Your task to perform on an android device: Go to network settings Image 0: 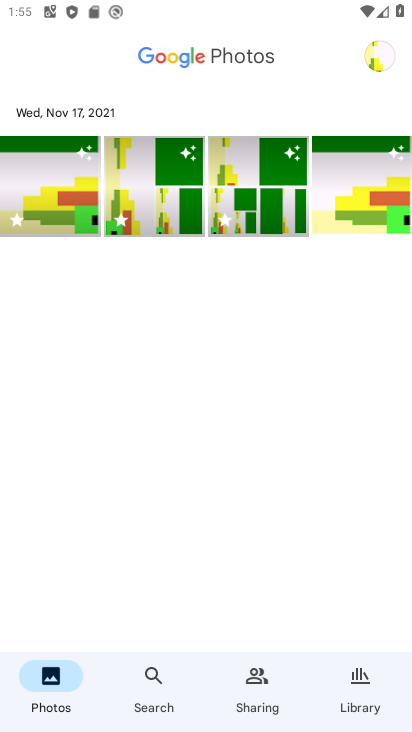
Step 0: press home button
Your task to perform on an android device: Go to network settings Image 1: 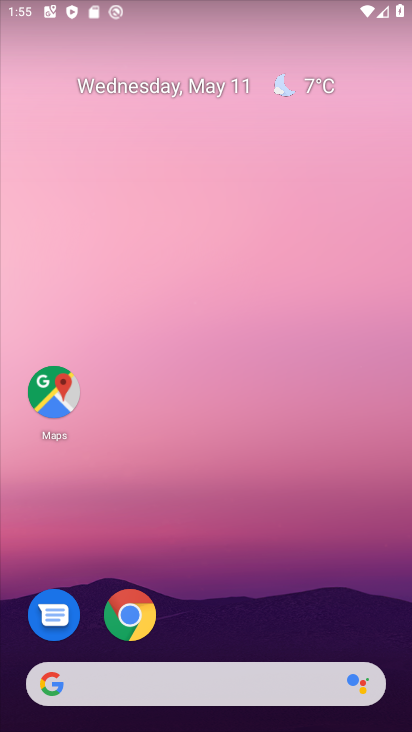
Step 1: drag from (259, 592) to (354, 14)
Your task to perform on an android device: Go to network settings Image 2: 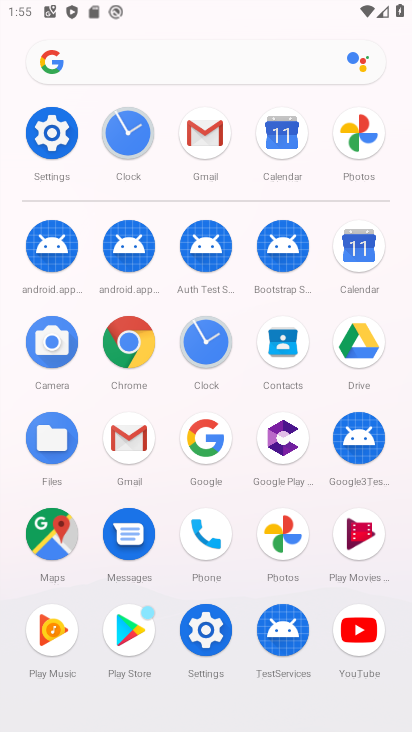
Step 2: click (59, 143)
Your task to perform on an android device: Go to network settings Image 3: 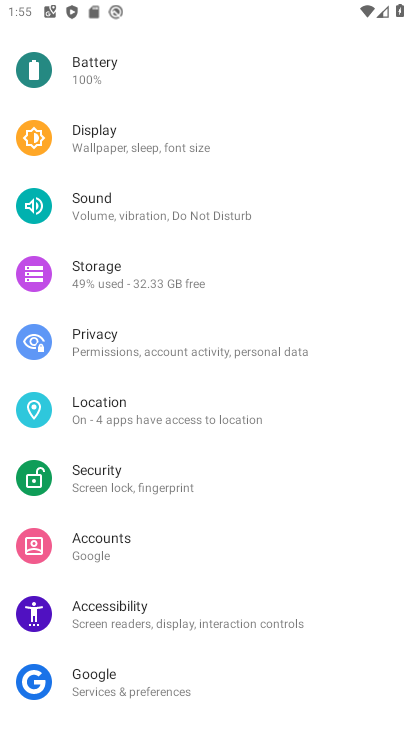
Step 3: drag from (215, 99) to (254, 710)
Your task to perform on an android device: Go to network settings Image 4: 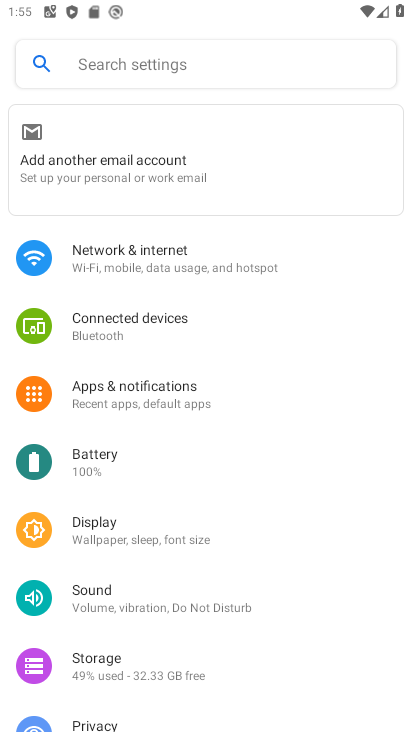
Step 4: click (227, 262)
Your task to perform on an android device: Go to network settings Image 5: 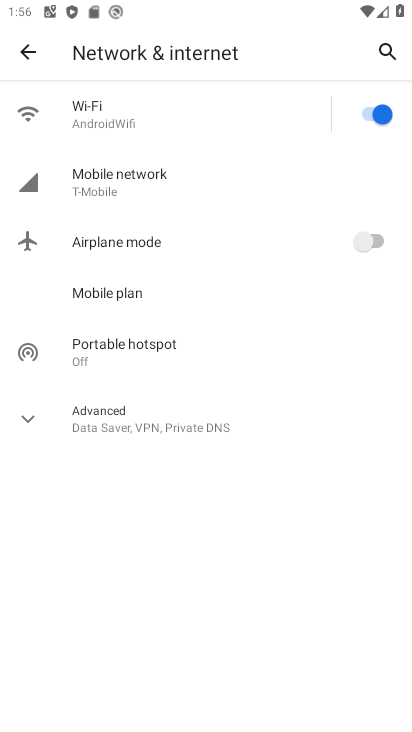
Step 5: click (188, 419)
Your task to perform on an android device: Go to network settings Image 6: 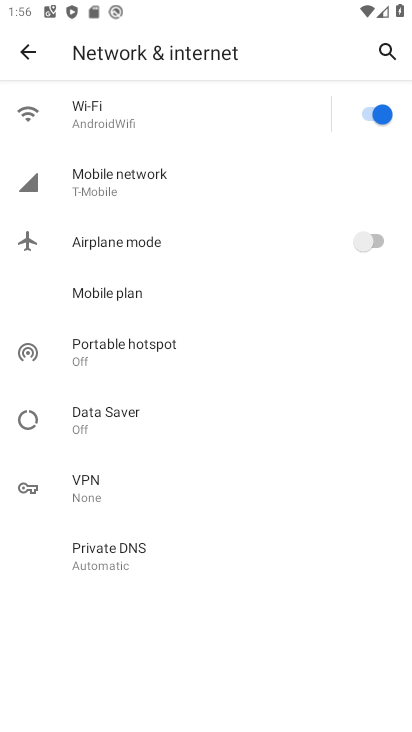
Step 6: task complete